Your task to perform on an android device: turn on translation in the chrome app Image 0: 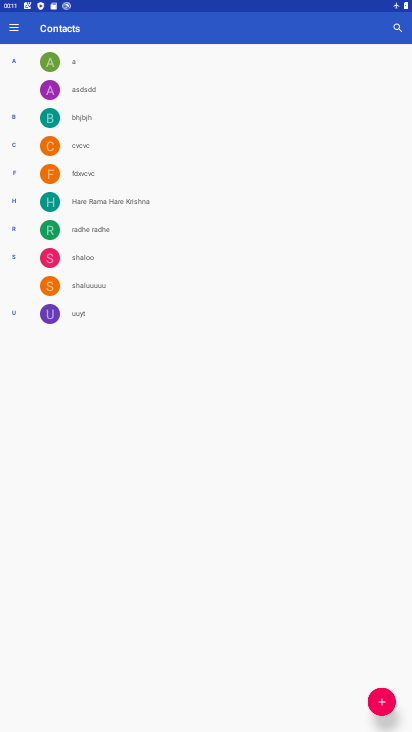
Step 0: press home button
Your task to perform on an android device: turn on translation in the chrome app Image 1: 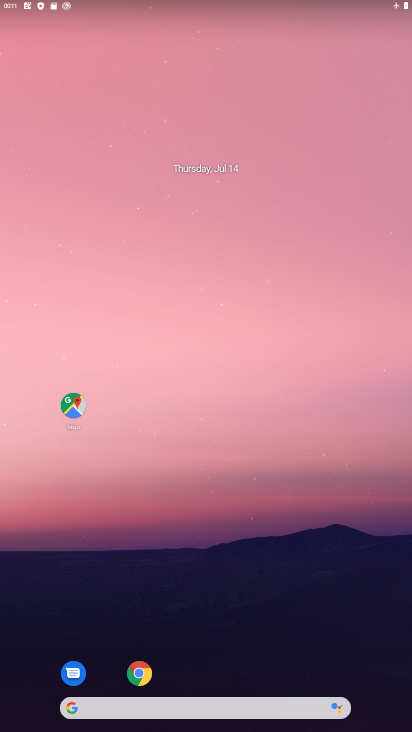
Step 1: click (143, 664)
Your task to perform on an android device: turn on translation in the chrome app Image 2: 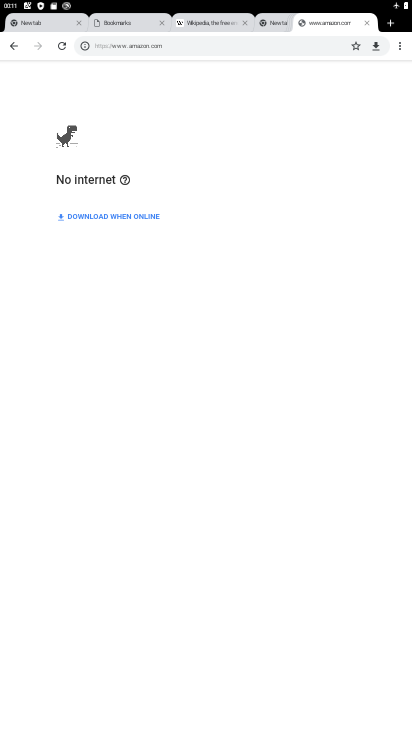
Step 2: click (391, 50)
Your task to perform on an android device: turn on translation in the chrome app Image 3: 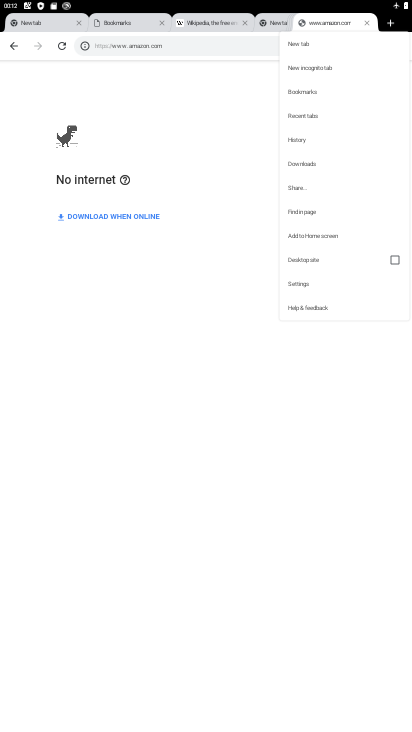
Step 3: click (298, 280)
Your task to perform on an android device: turn on translation in the chrome app Image 4: 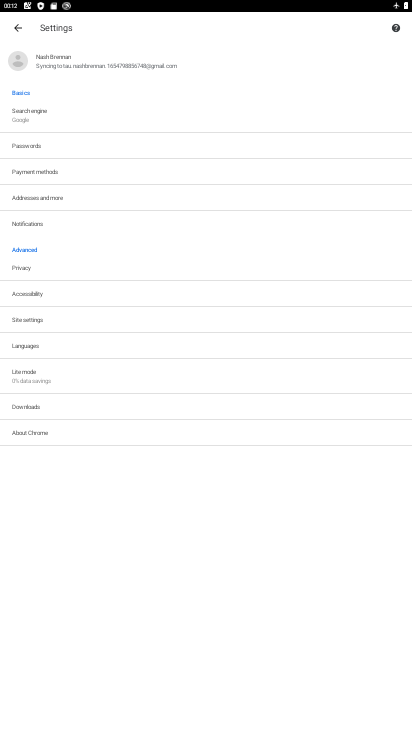
Step 4: click (51, 341)
Your task to perform on an android device: turn on translation in the chrome app Image 5: 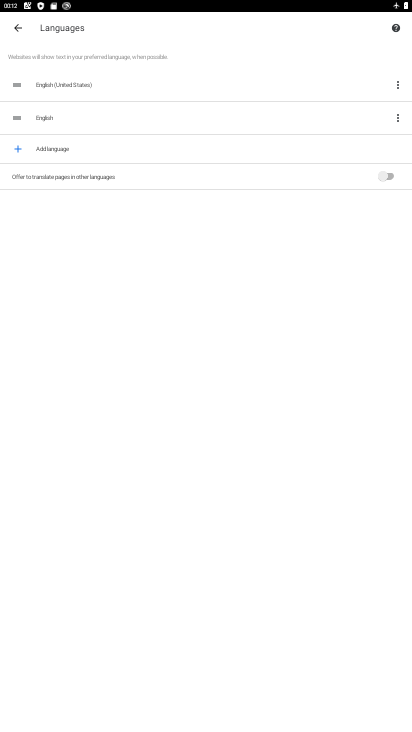
Step 5: click (392, 179)
Your task to perform on an android device: turn on translation in the chrome app Image 6: 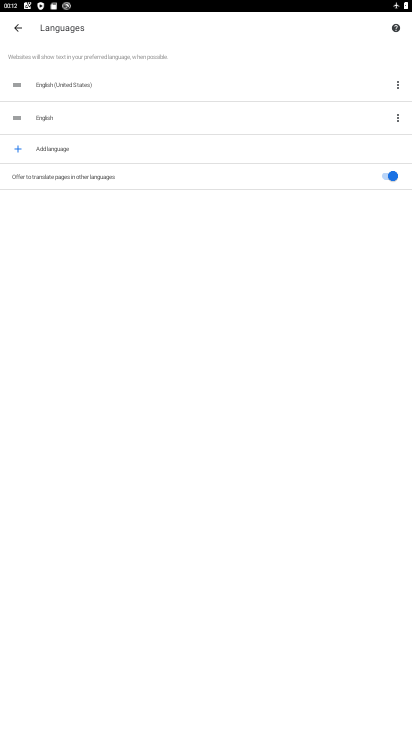
Step 6: task complete